Your task to perform on an android device: turn notification dots off Image 0: 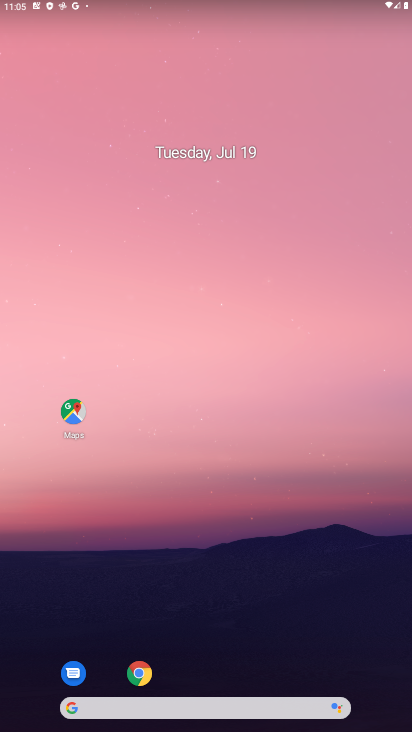
Step 0: drag from (307, 650) to (279, 45)
Your task to perform on an android device: turn notification dots off Image 1: 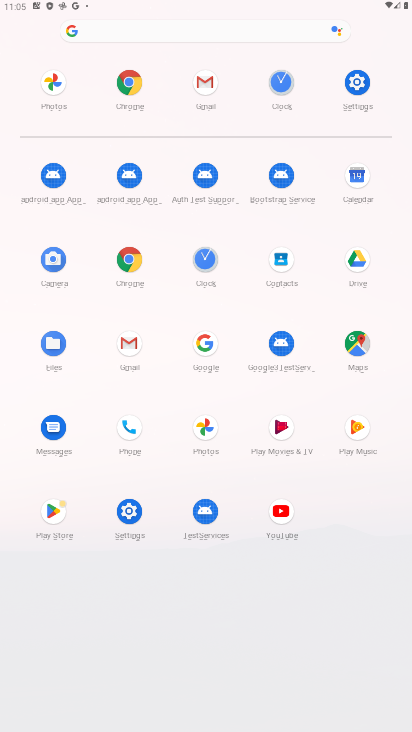
Step 1: click (353, 88)
Your task to perform on an android device: turn notification dots off Image 2: 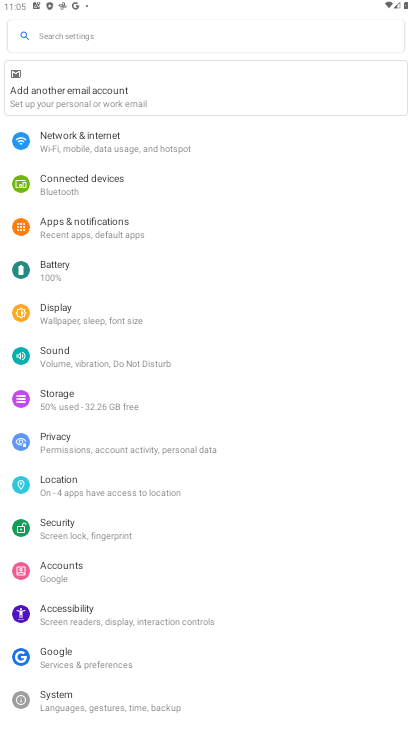
Step 2: click (186, 232)
Your task to perform on an android device: turn notification dots off Image 3: 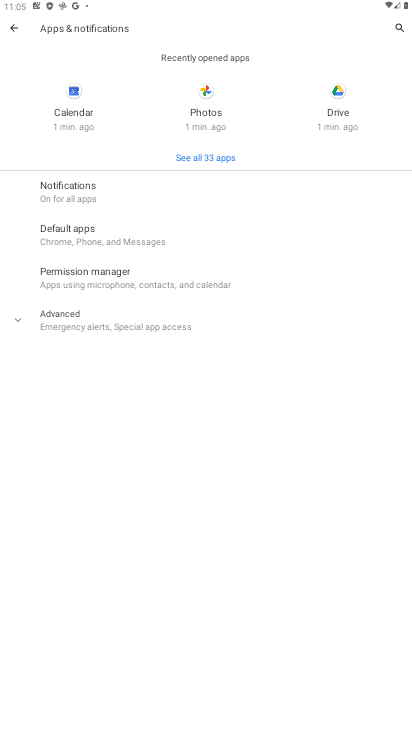
Step 3: task complete